Your task to perform on an android device: add a contact Image 0: 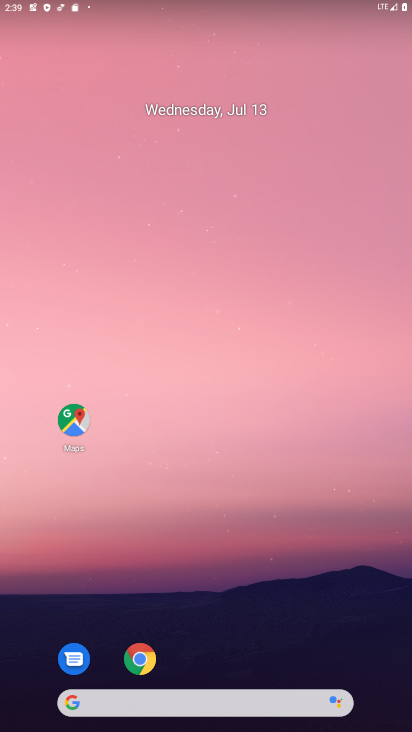
Step 0: drag from (385, 693) to (348, 112)
Your task to perform on an android device: add a contact Image 1: 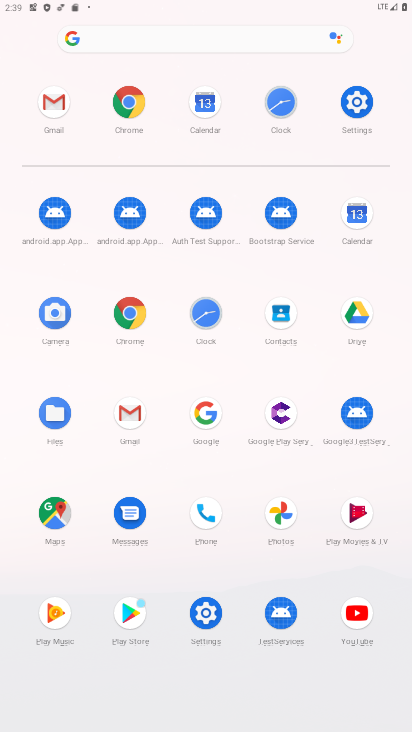
Step 1: click (280, 317)
Your task to perform on an android device: add a contact Image 2: 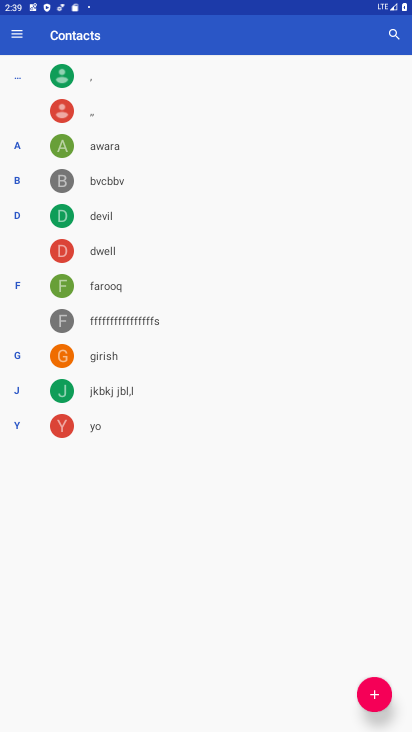
Step 2: click (374, 693)
Your task to perform on an android device: add a contact Image 3: 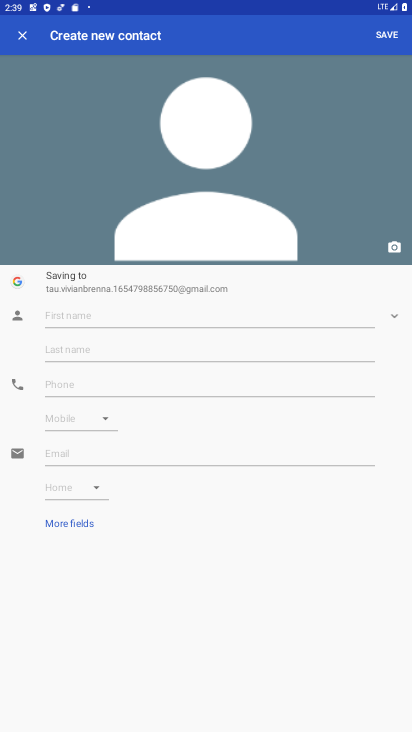
Step 3: click (53, 310)
Your task to perform on an android device: add a contact Image 4: 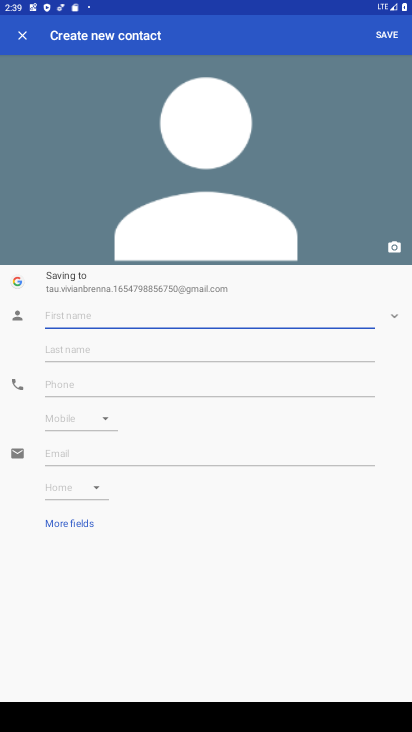
Step 4: type "kjgfttvb"
Your task to perform on an android device: add a contact Image 5: 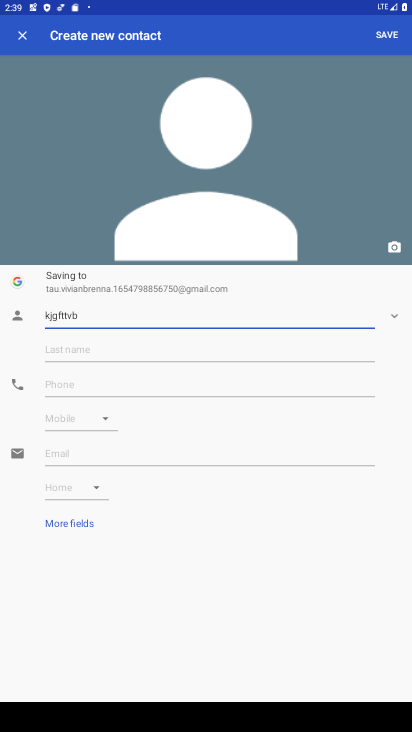
Step 5: click (66, 386)
Your task to perform on an android device: add a contact Image 6: 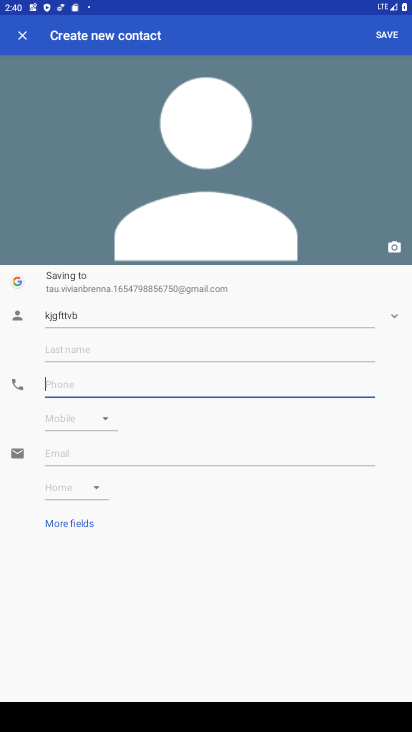
Step 6: type "987654345"
Your task to perform on an android device: add a contact Image 7: 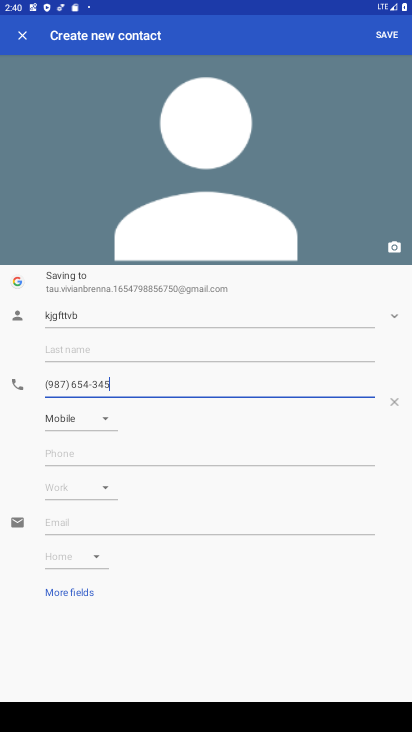
Step 7: click (383, 37)
Your task to perform on an android device: add a contact Image 8: 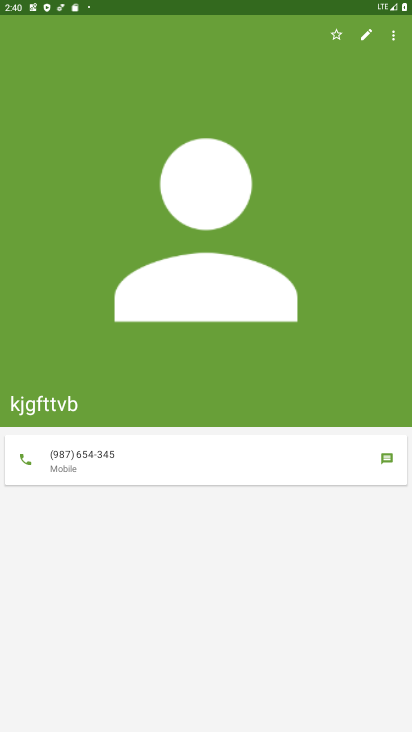
Step 8: task complete